Your task to perform on an android device: search for 2021 honda civic Image 0: 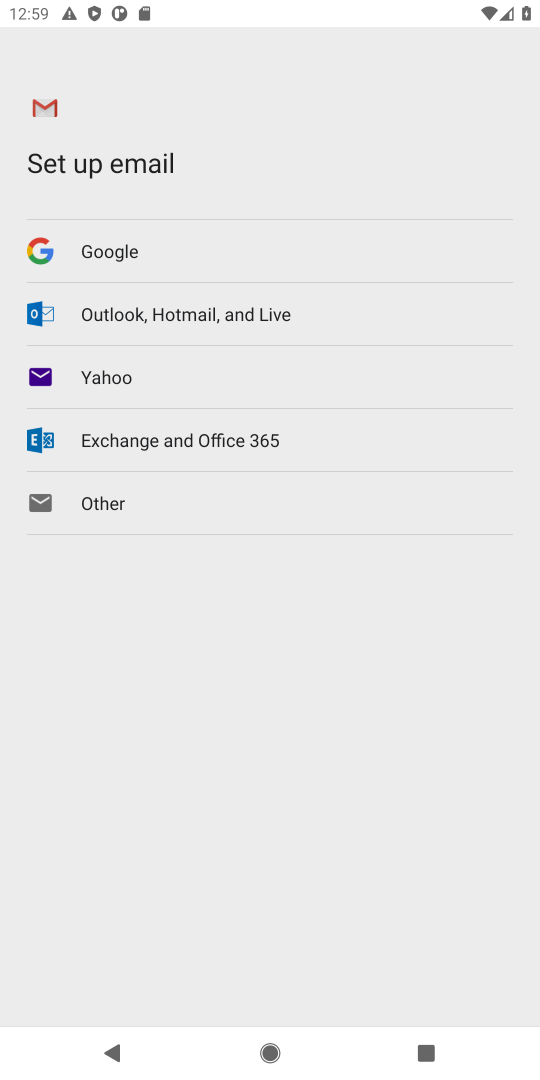
Step 0: press home button
Your task to perform on an android device: search for 2021 honda civic Image 1: 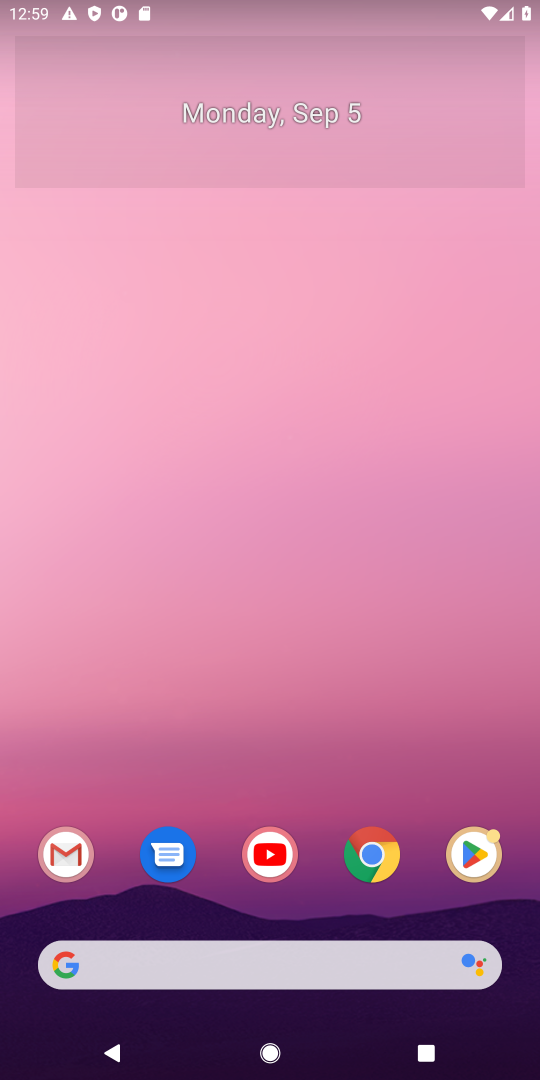
Step 1: click (229, 964)
Your task to perform on an android device: search for 2021 honda civic Image 2: 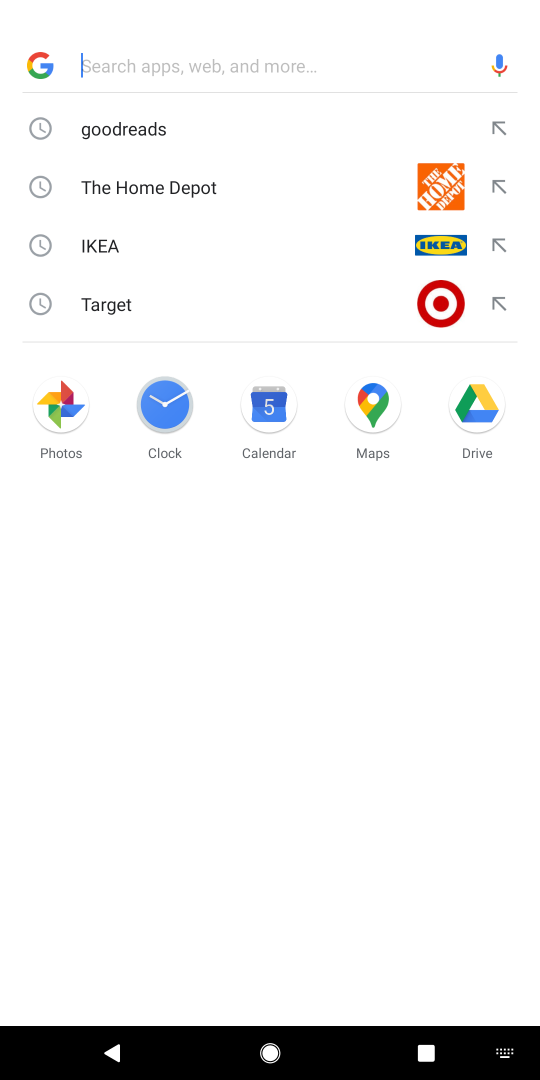
Step 2: press enter
Your task to perform on an android device: search for 2021 honda civic Image 3: 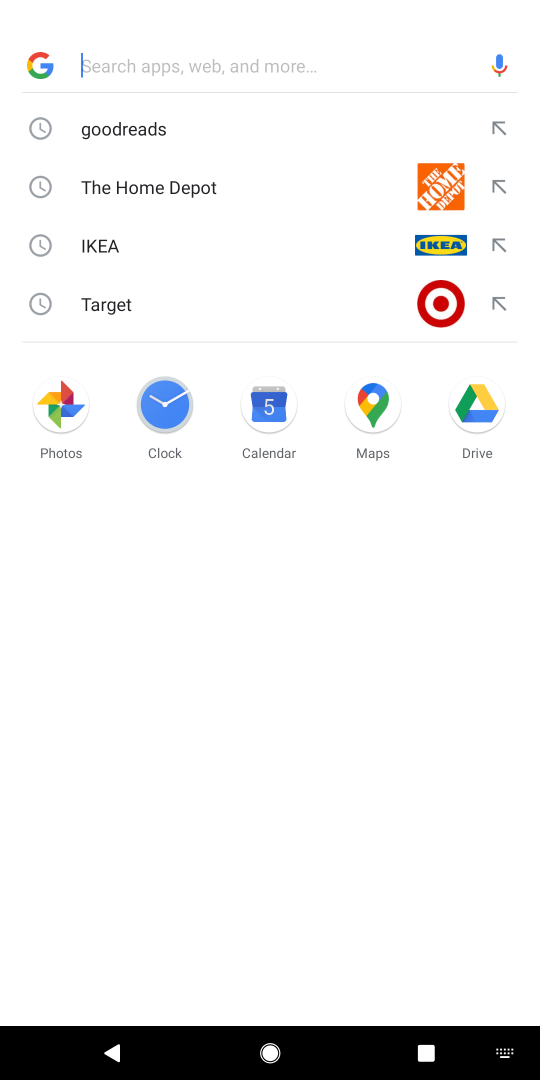
Step 3: type "2021 honda civic"
Your task to perform on an android device: search for 2021 honda civic Image 4: 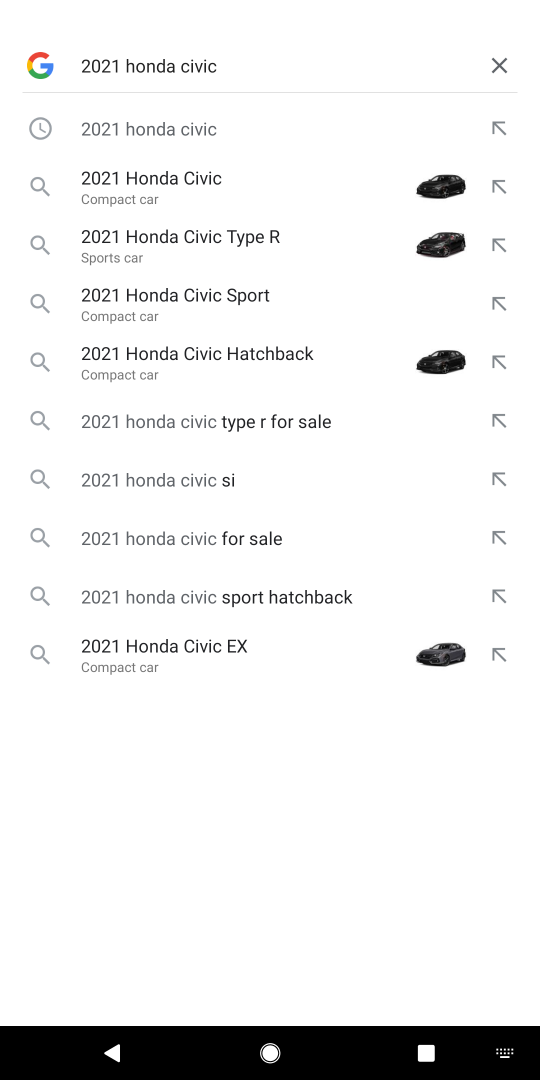
Step 4: click (188, 136)
Your task to perform on an android device: search for 2021 honda civic Image 5: 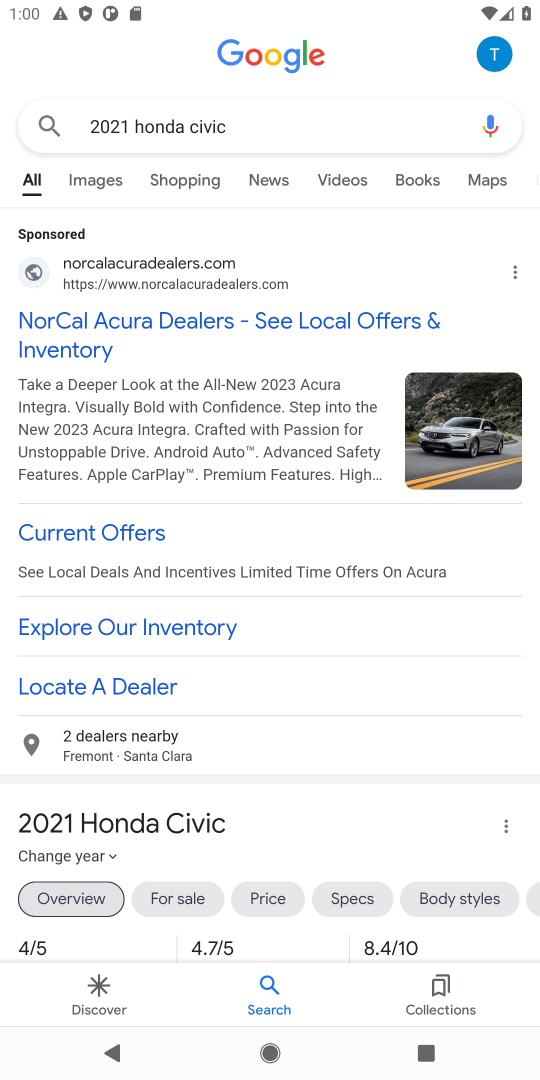
Step 5: task complete